Your task to perform on an android device: Open the calendar and show me this week's events? Image 0: 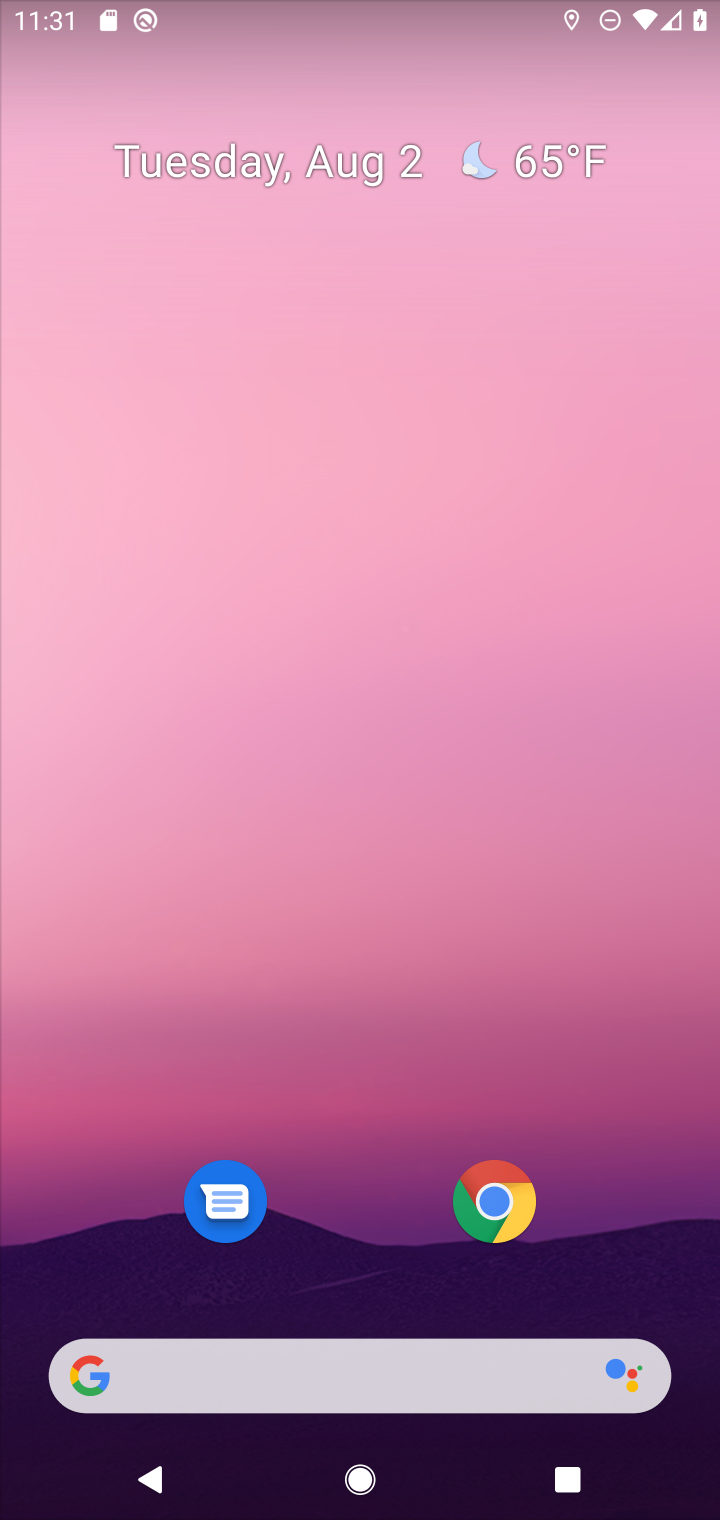
Step 0: drag from (358, 1332) to (358, 32)
Your task to perform on an android device: Open the calendar and show me this week's events? Image 1: 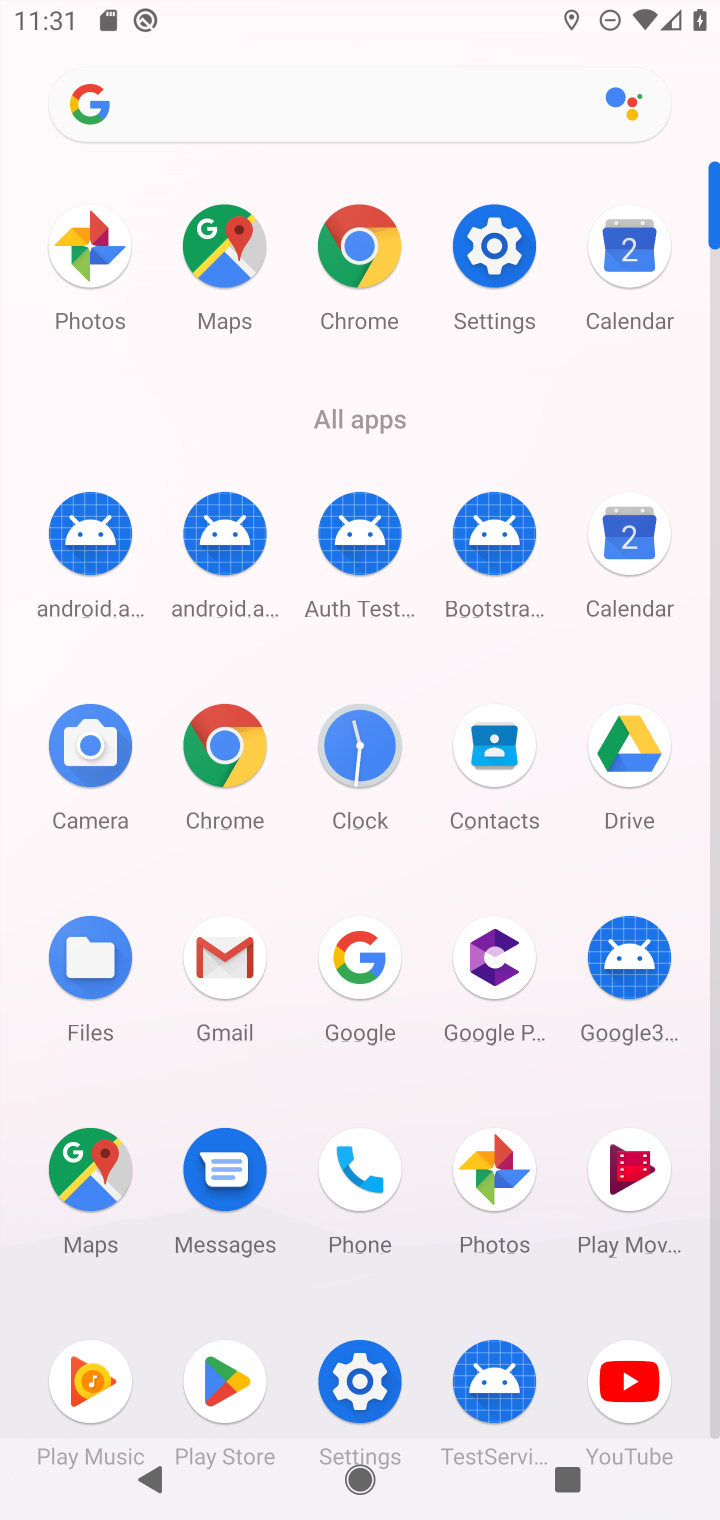
Step 1: click (613, 277)
Your task to perform on an android device: Open the calendar and show me this week's events? Image 2: 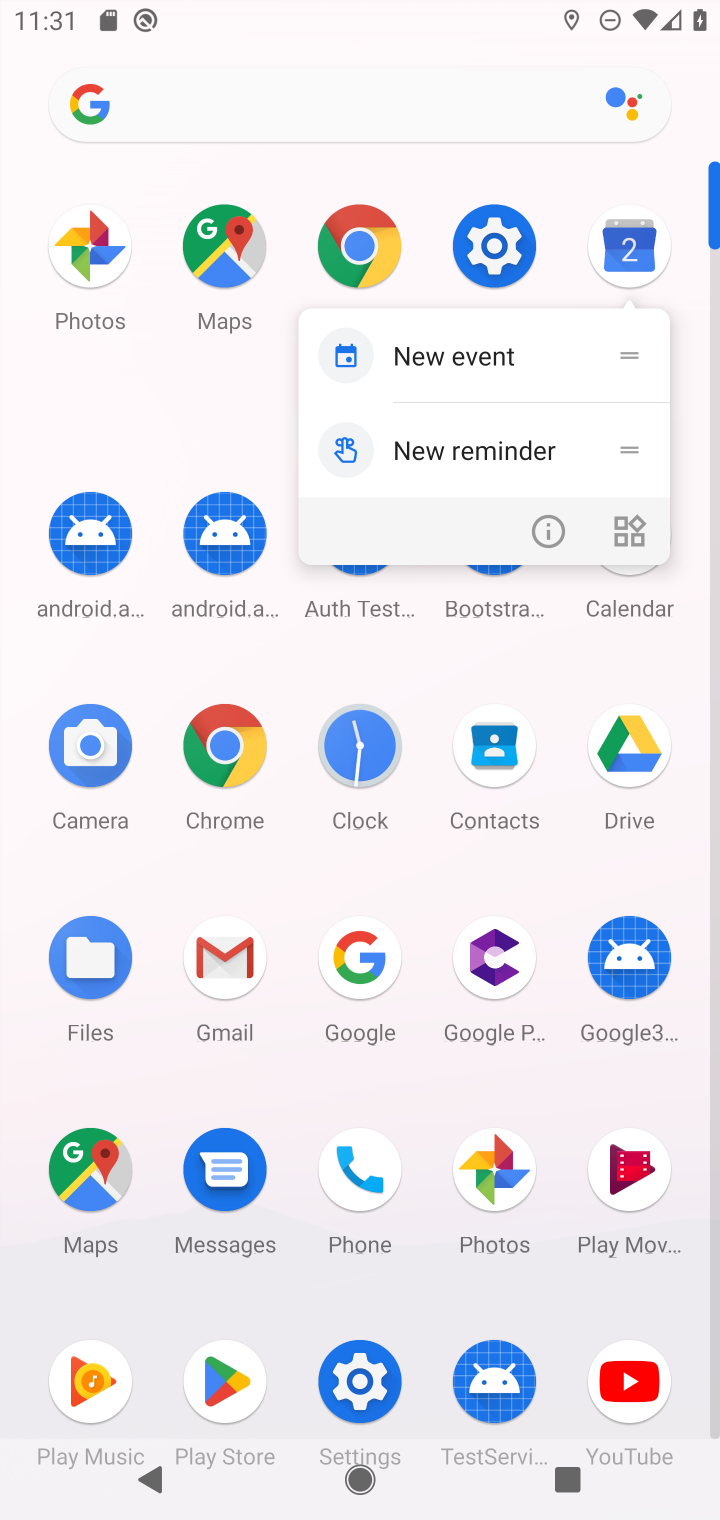
Step 2: click (639, 241)
Your task to perform on an android device: Open the calendar and show me this week's events? Image 3: 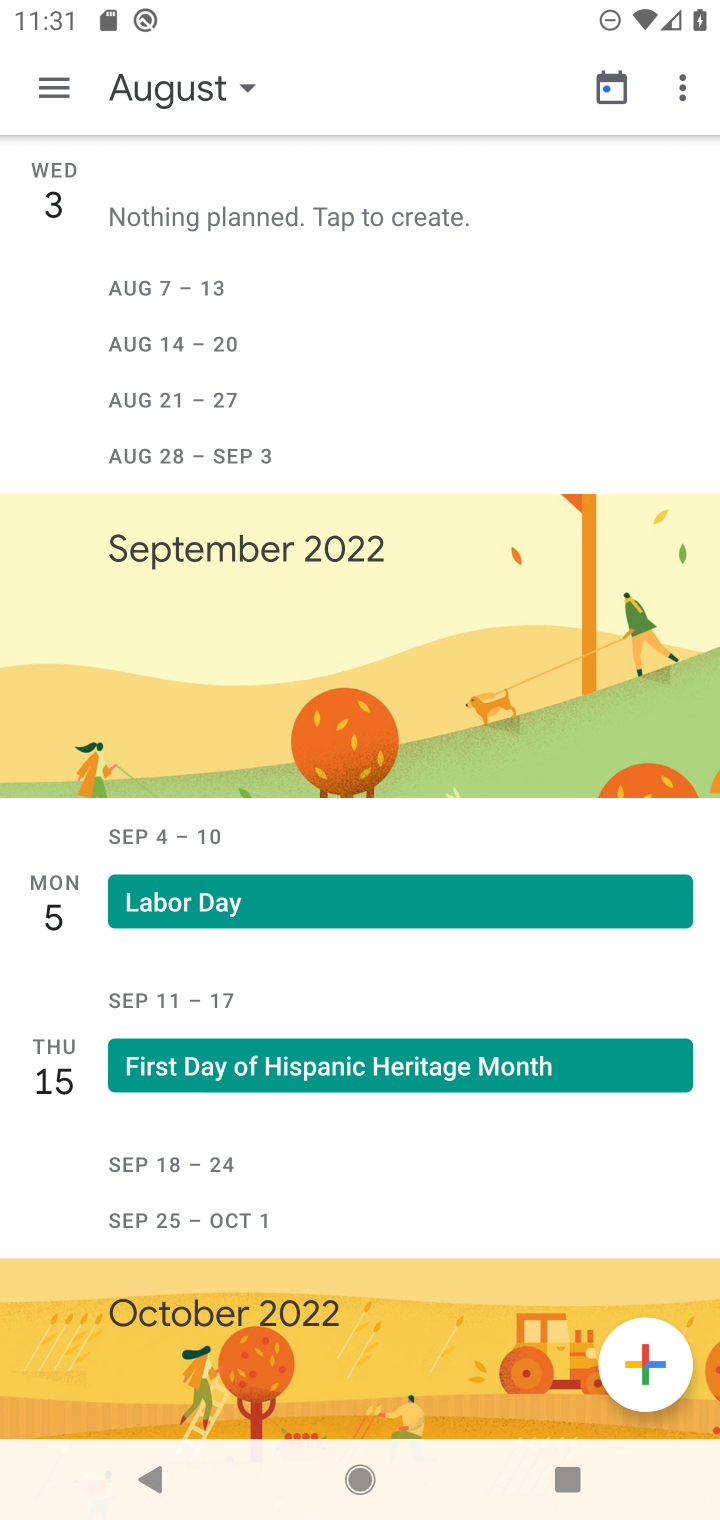
Step 3: click (56, 102)
Your task to perform on an android device: Open the calendar and show me this week's events? Image 4: 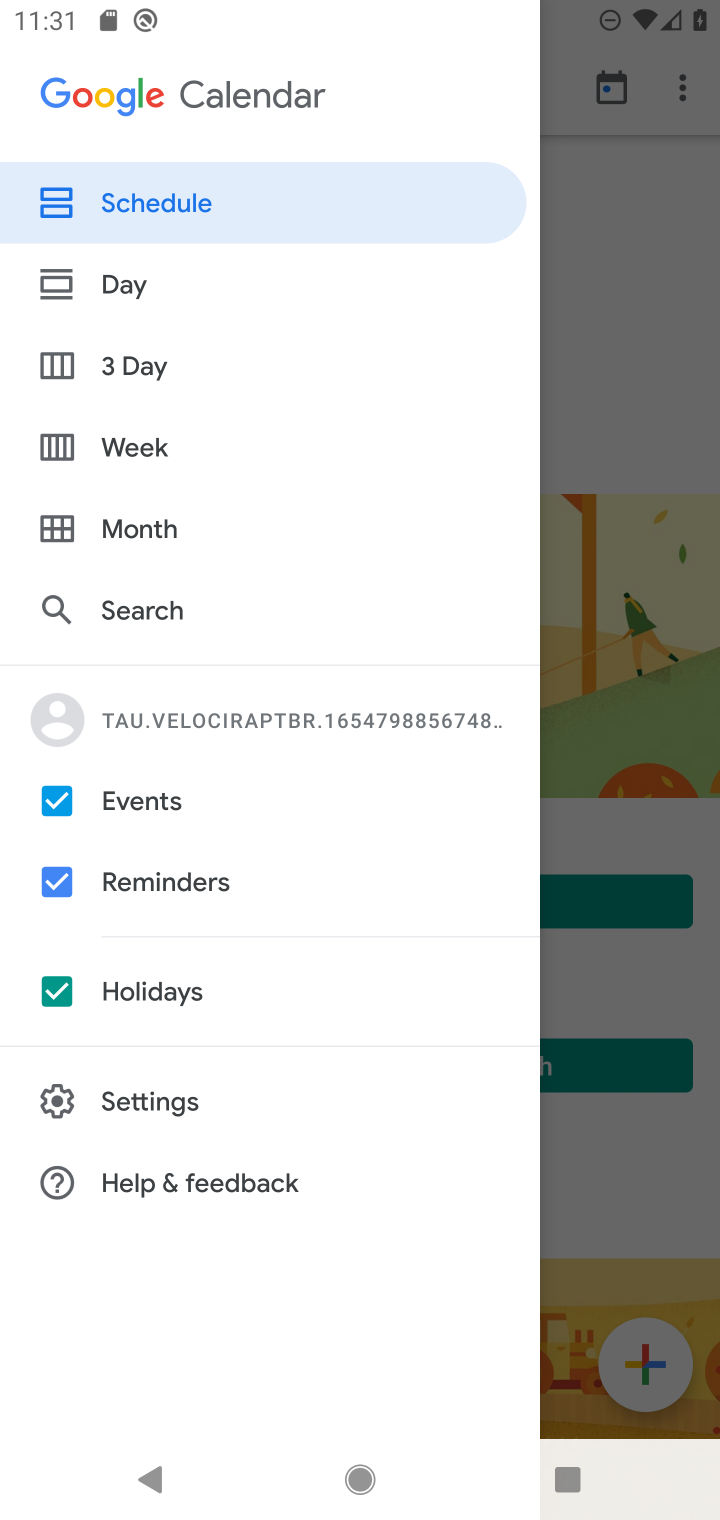
Step 4: click (168, 446)
Your task to perform on an android device: Open the calendar and show me this week's events? Image 5: 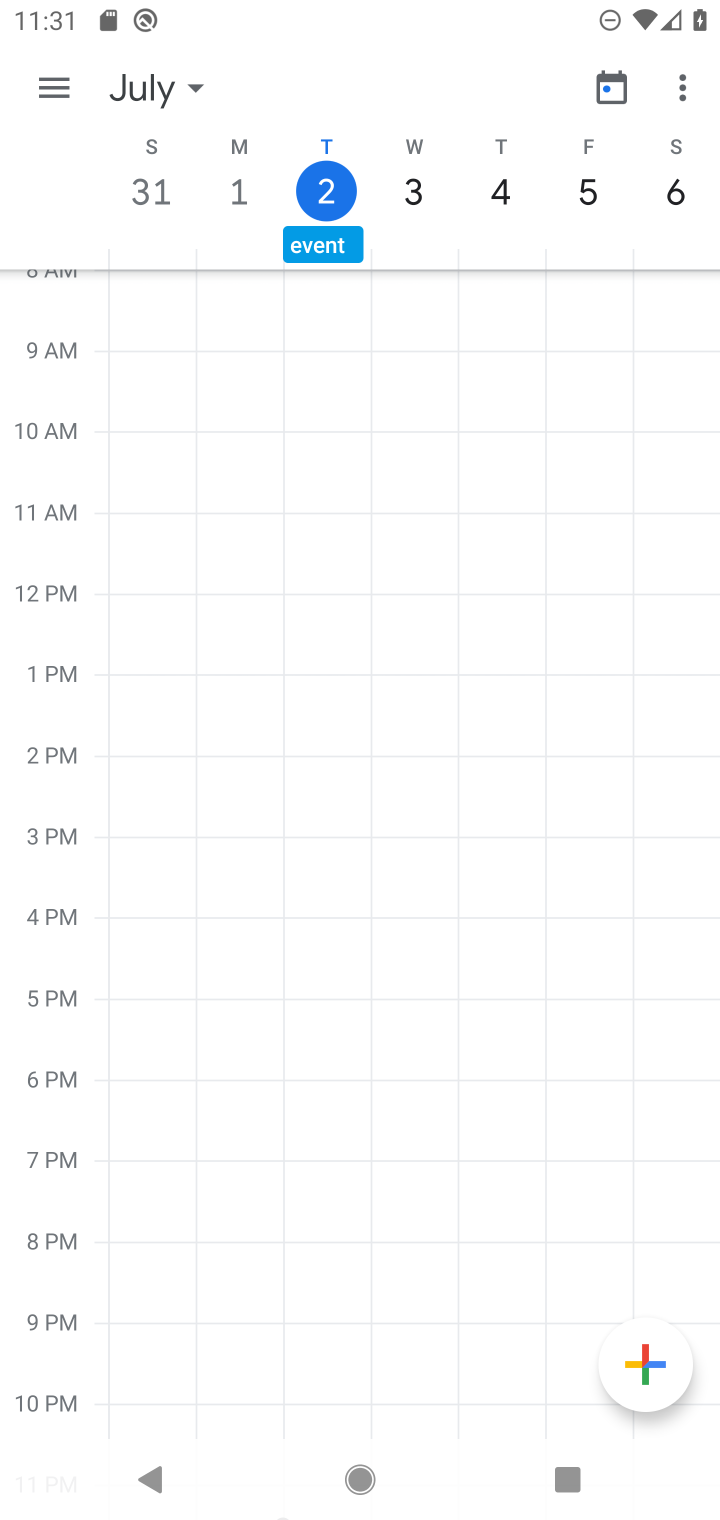
Step 5: task complete